Your task to perform on an android device: Open Amazon Image 0: 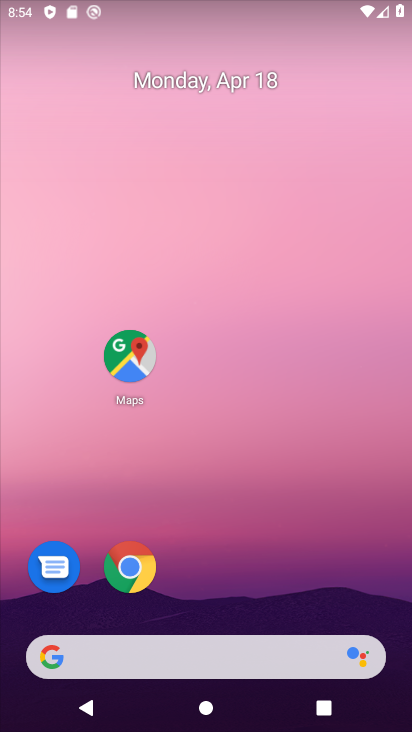
Step 0: click (147, 564)
Your task to perform on an android device: Open Amazon Image 1: 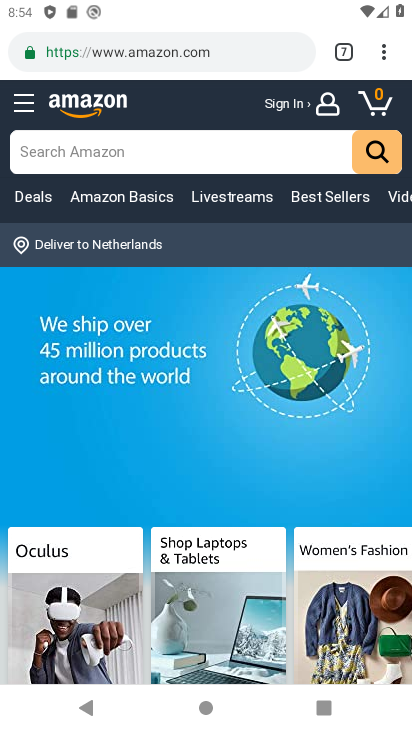
Step 1: click (219, 43)
Your task to perform on an android device: Open Amazon Image 2: 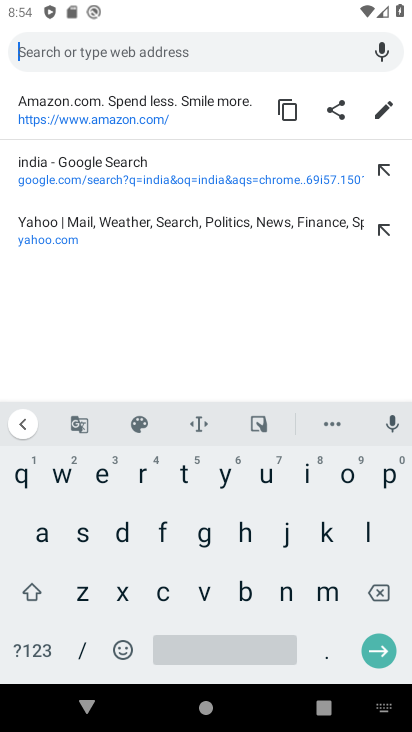
Step 2: click (134, 110)
Your task to perform on an android device: Open Amazon Image 3: 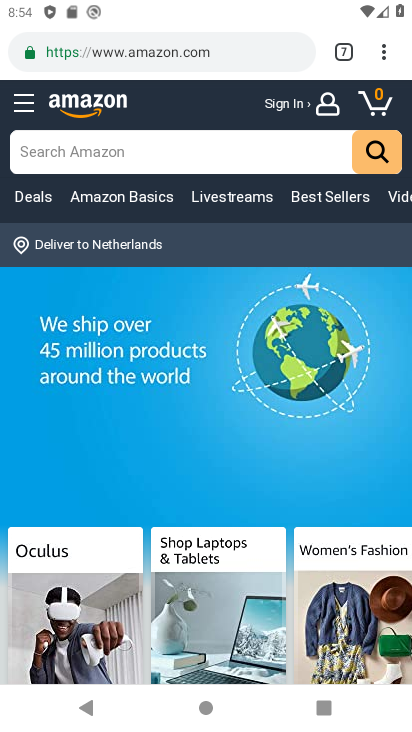
Step 3: task complete